Your task to perform on an android device: change notification settings in the gmail app Image 0: 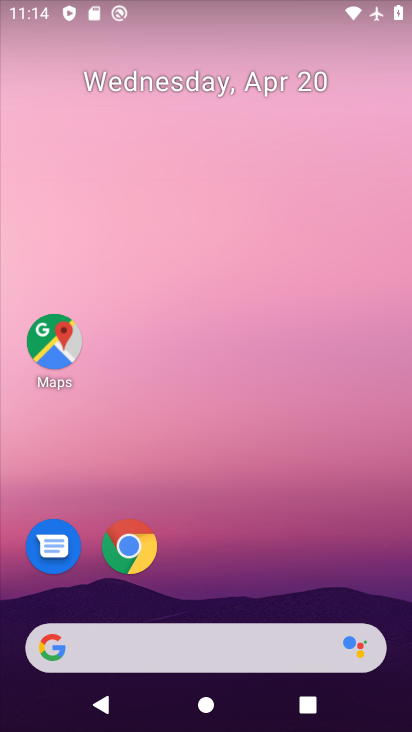
Step 0: press home button
Your task to perform on an android device: change notification settings in the gmail app Image 1: 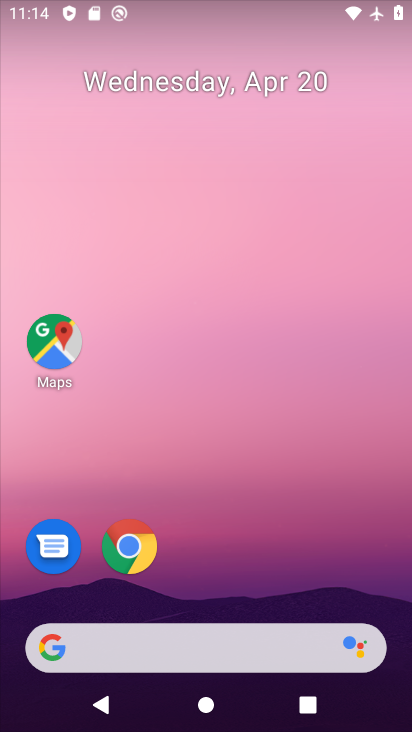
Step 1: drag from (142, 634) to (279, 63)
Your task to perform on an android device: change notification settings in the gmail app Image 2: 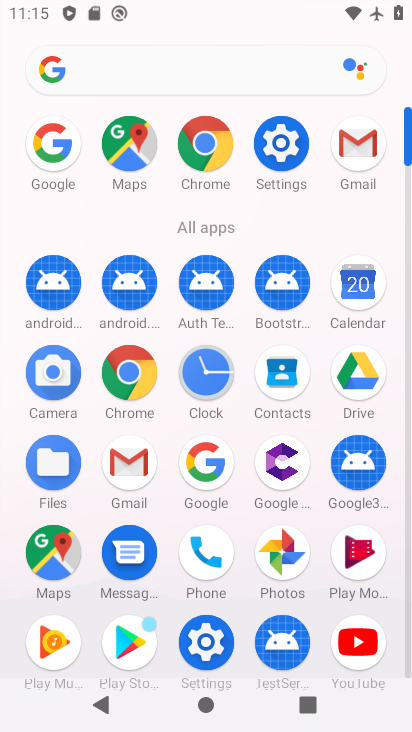
Step 2: click (117, 467)
Your task to perform on an android device: change notification settings in the gmail app Image 3: 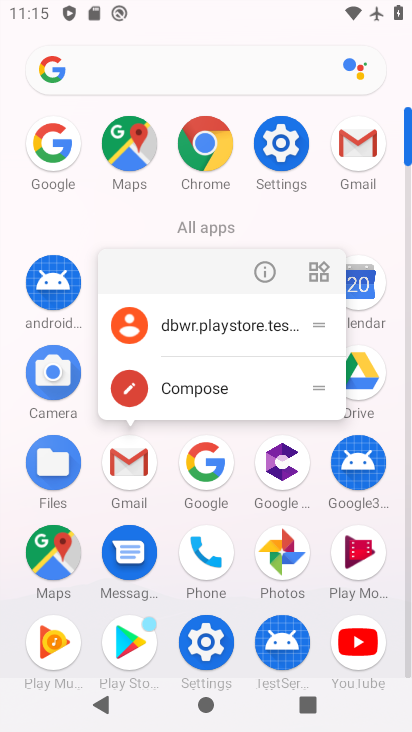
Step 3: click (126, 473)
Your task to perform on an android device: change notification settings in the gmail app Image 4: 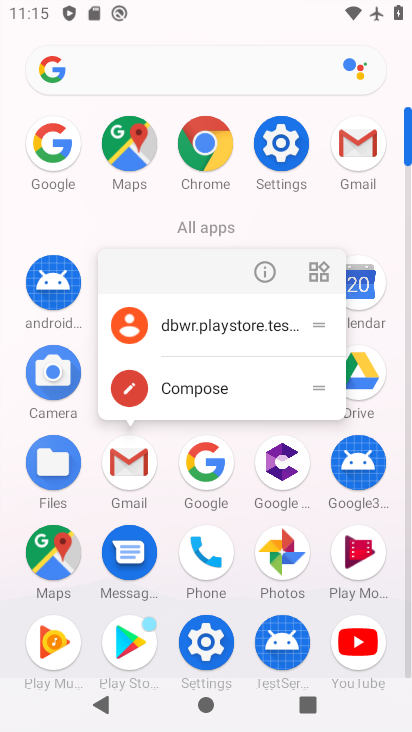
Step 4: click (130, 470)
Your task to perform on an android device: change notification settings in the gmail app Image 5: 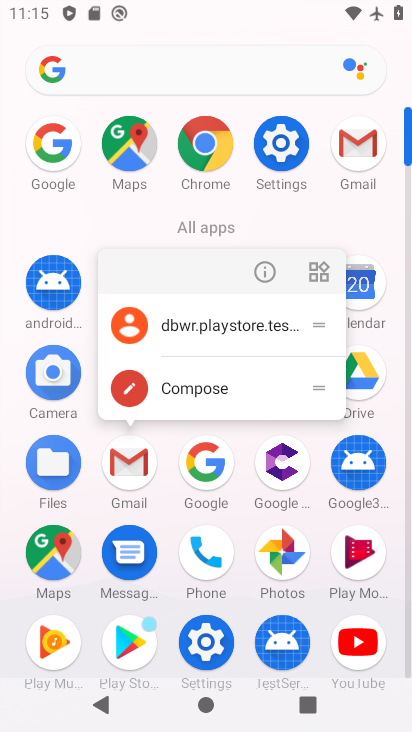
Step 5: click (141, 466)
Your task to perform on an android device: change notification settings in the gmail app Image 6: 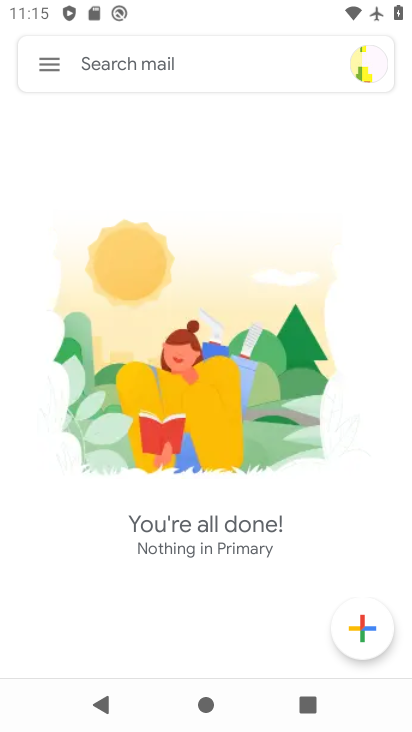
Step 6: click (47, 63)
Your task to perform on an android device: change notification settings in the gmail app Image 7: 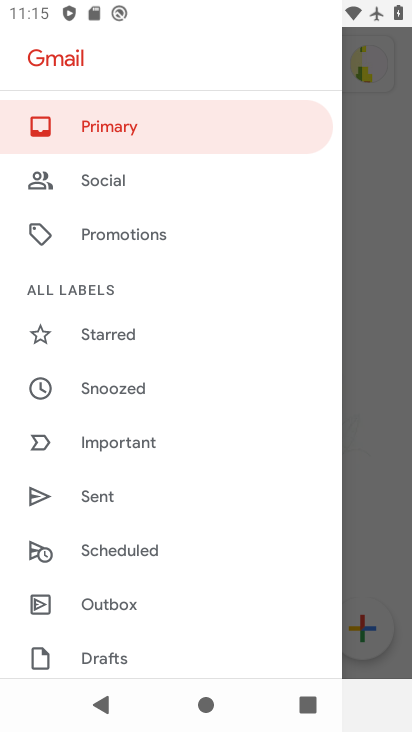
Step 7: drag from (212, 626) to (314, 188)
Your task to perform on an android device: change notification settings in the gmail app Image 8: 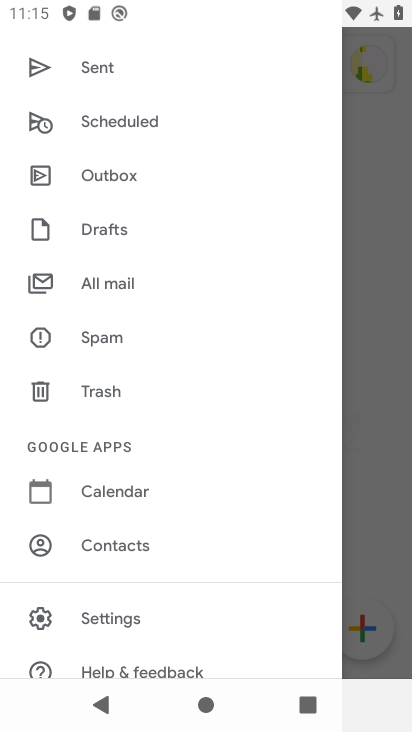
Step 8: click (130, 620)
Your task to perform on an android device: change notification settings in the gmail app Image 9: 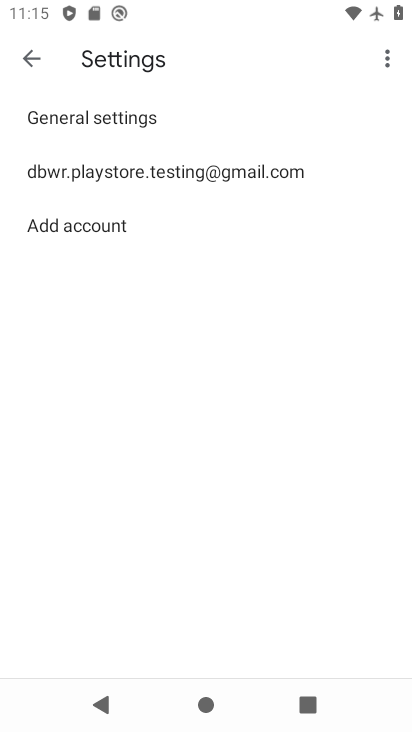
Step 9: click (235, 171)
Your task to perform on an android device: change notification settings in the gmail app Image 10: 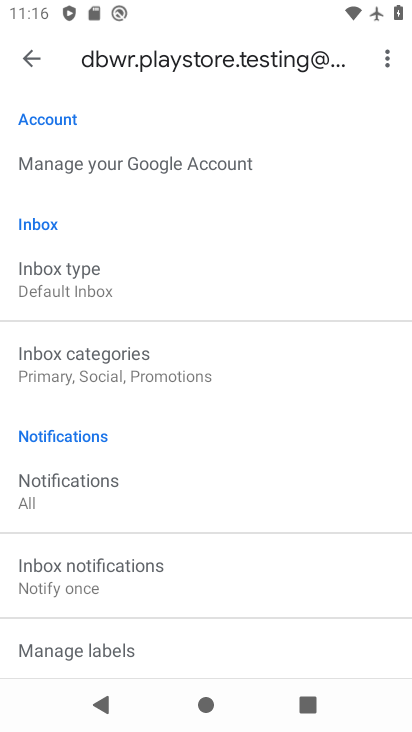
Step 10: click (82, 486)
Your task to perform on an android device: change notification settings in the gmail app Image 11: 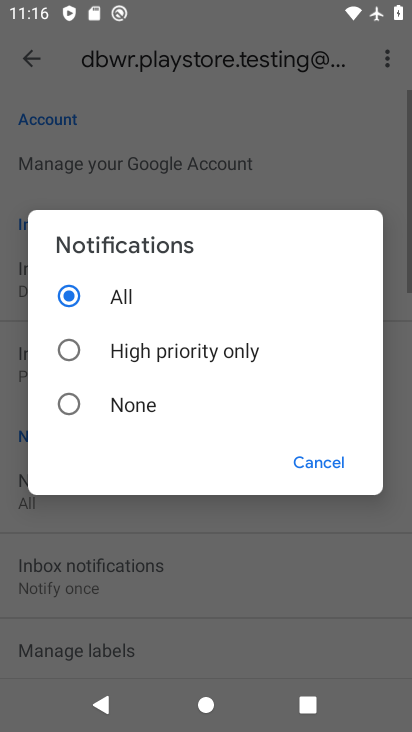
Step 11: click (65, 407)
Your task to perform on an android device: change notification settings in the gmail app Image 12: 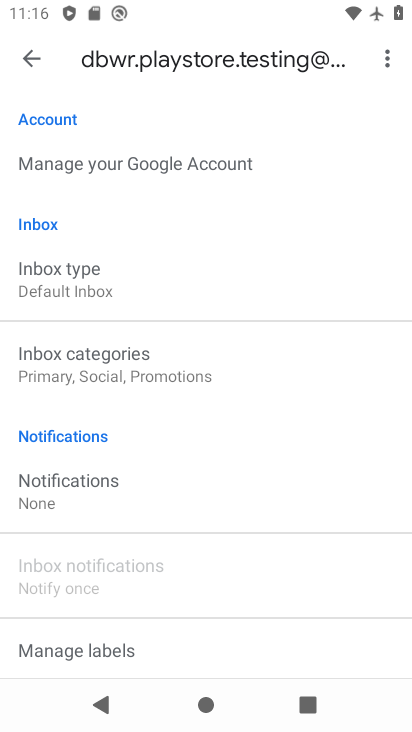
Step 12: task complete